Your task to perform on an android device: toggle wifi Image 0: 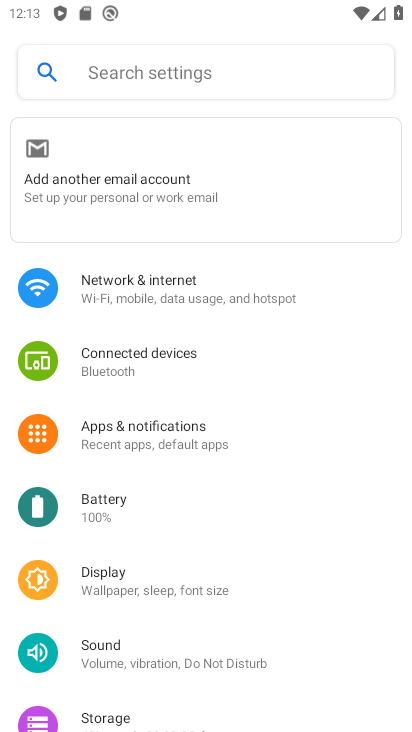
Step 0: press home button
Your task to perform on an android device: toggle wifi Image 1: 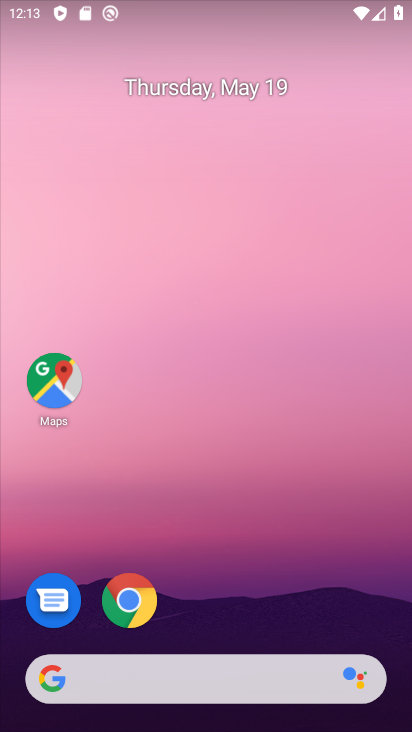
Step 1: drag from (265, 504) to (251, 119)
Your task to perform on an android device: toggle wifi Image 2: 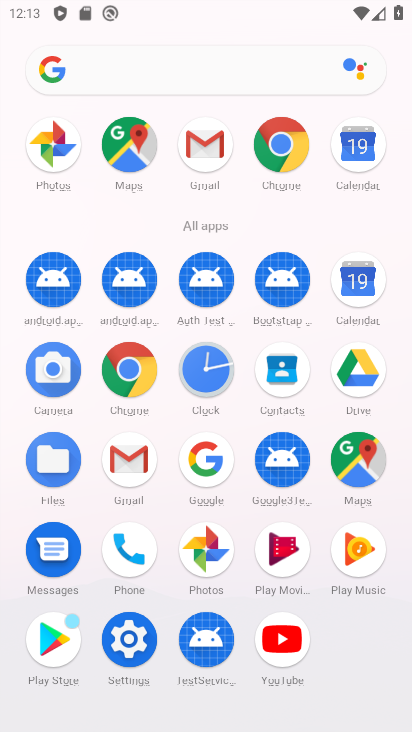
Step 2: click (131, 637)
Your task to perform on an android device: toggle wifi Image 3: 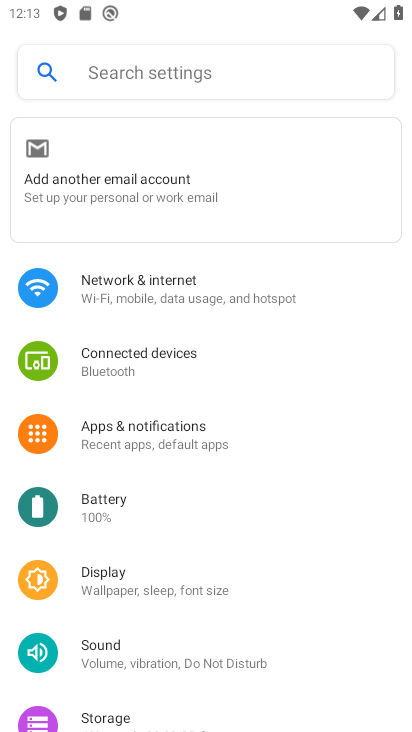
Step 3: click (149, 281)
Your task to perform on an android device: toggle wifi Image 4: 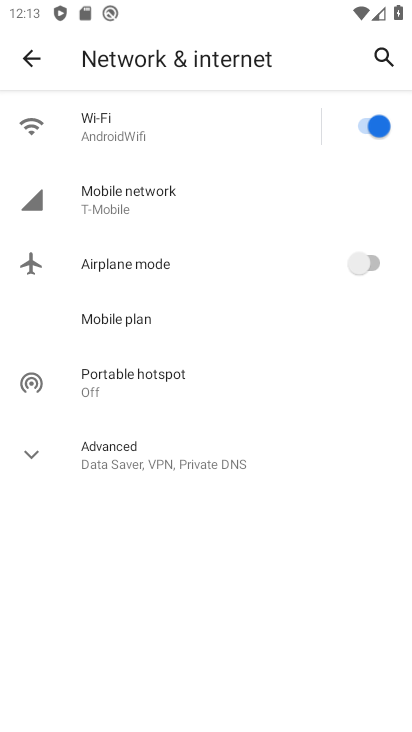
Step 4: click (367, 128)
Your task to perform on an android device: toggle wifi Image 5: 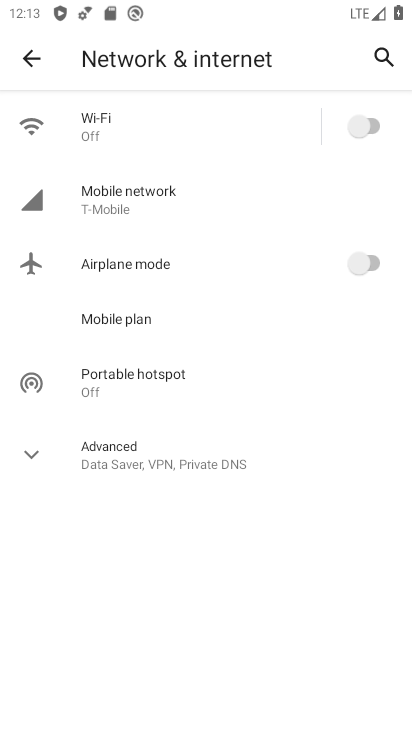
Step 5: task complete